Your task to perform on an android device: check out phone information Image 0: 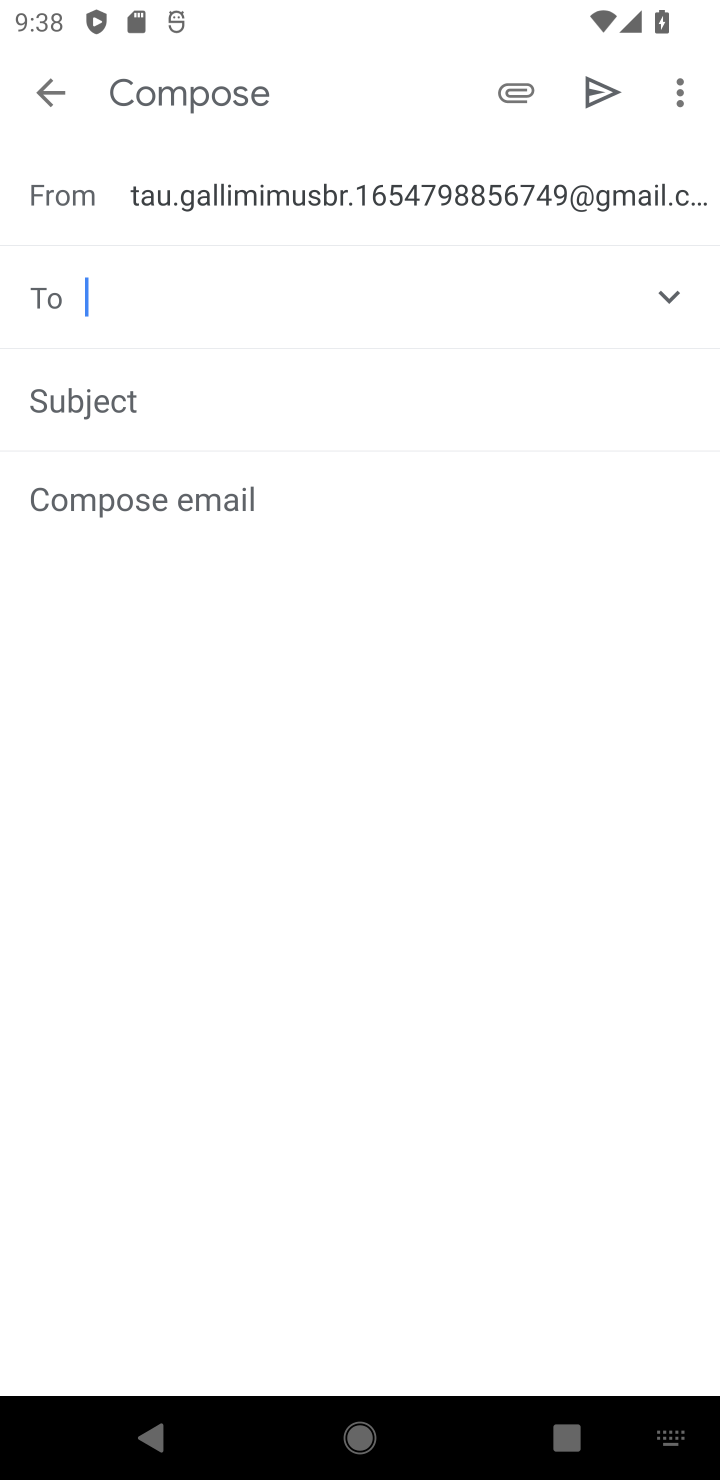
Step 0: press home button
Your task to perform on an android device: check out phone information Image 1: 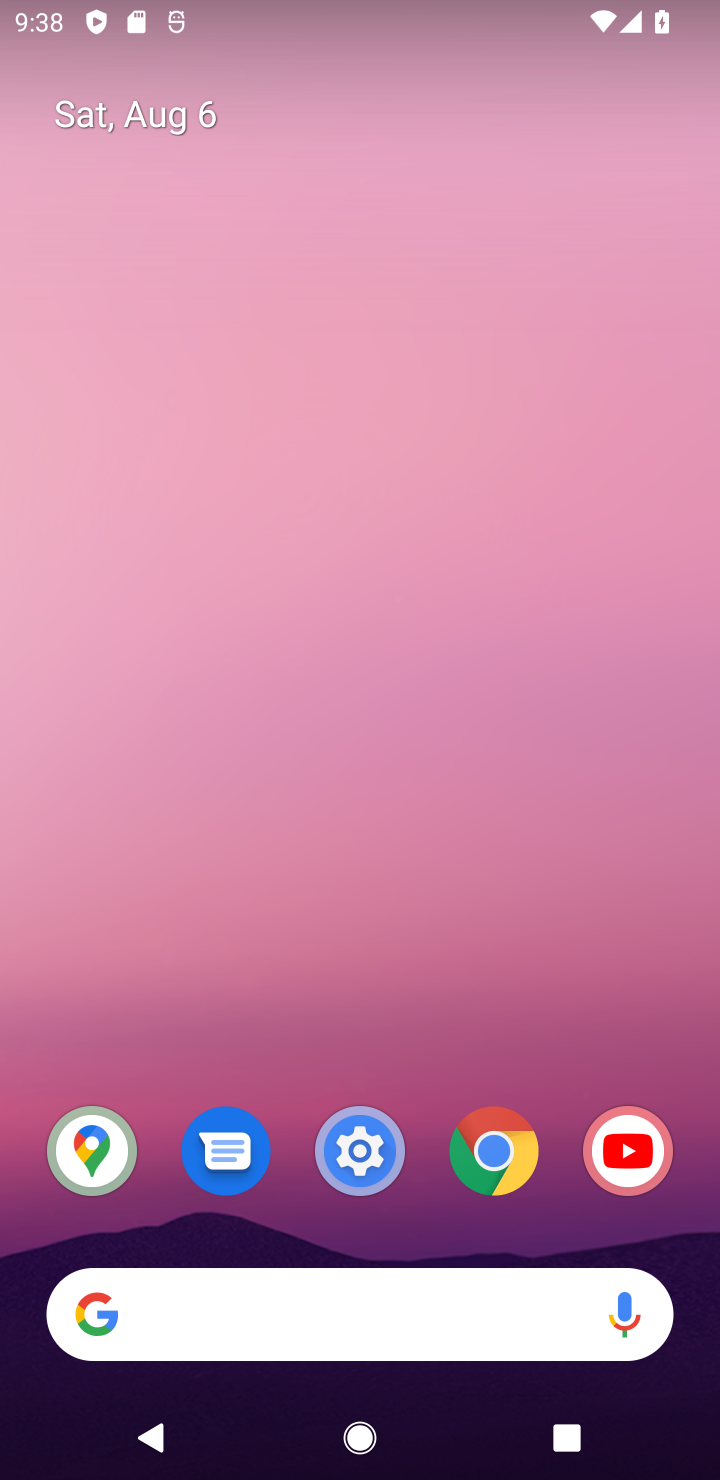
Step 1: drag from (390, 1034) to (511, 159)
Your task to perform on an android device: check out phone information Image 2: 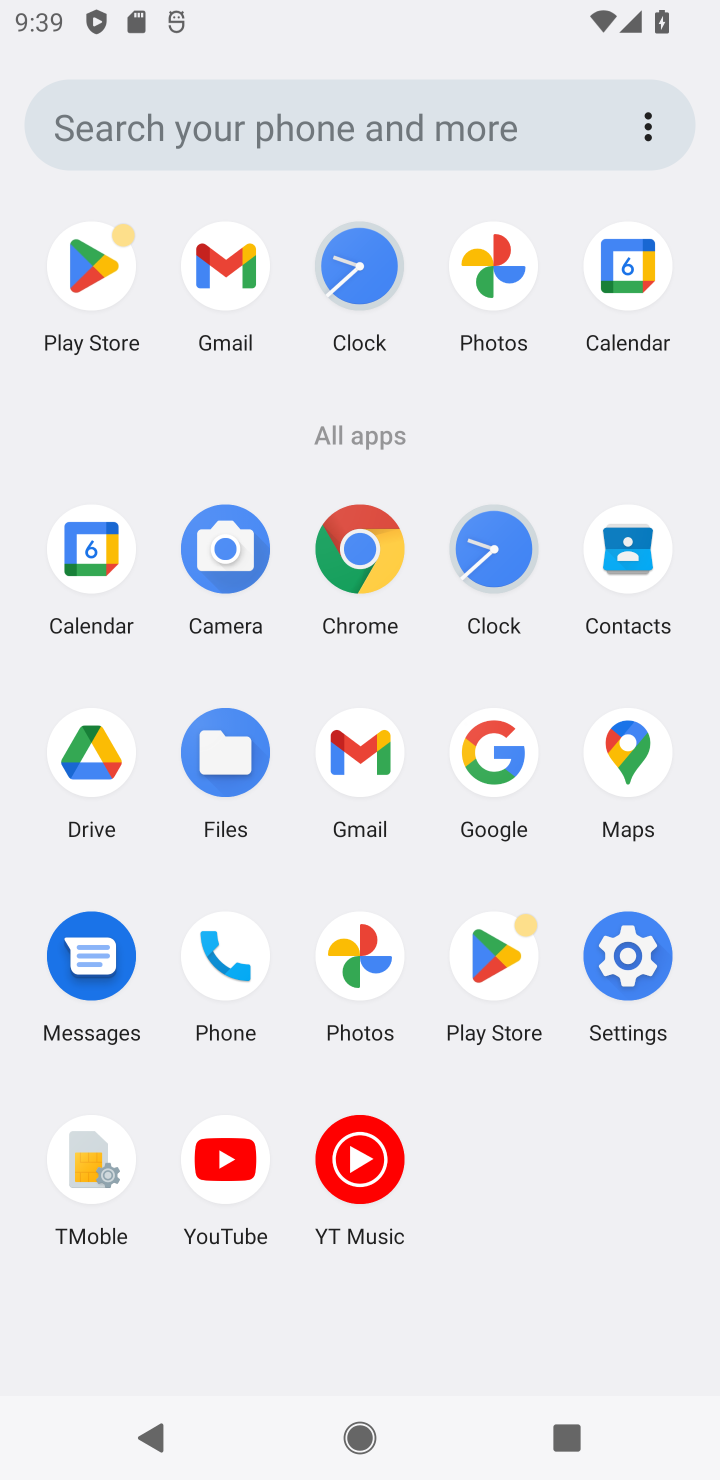
Step 2: click (639, 970)
Your task to perform on an android device: check out phone information Image 3: 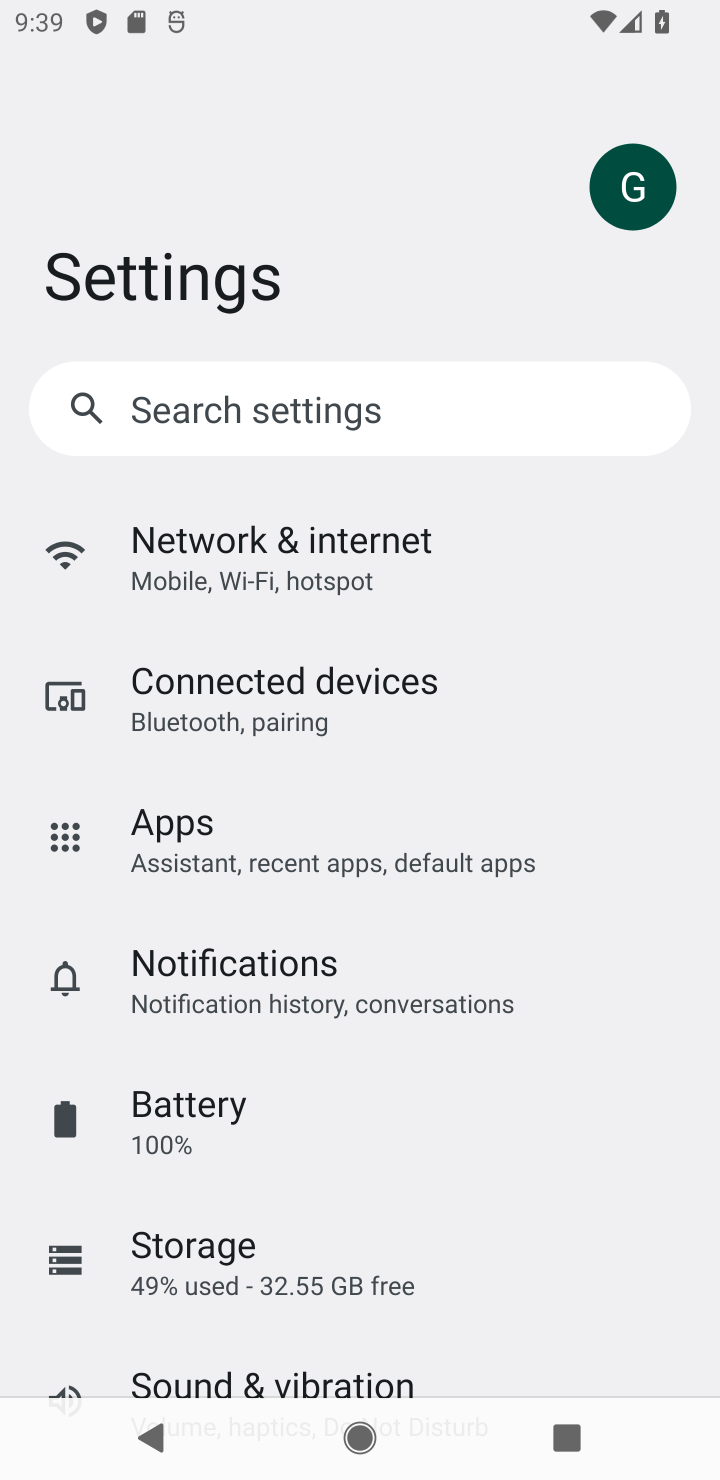
Step 3: task complete